Your task to perform on an android device: stop showing notifications on the lock screen Image 0: 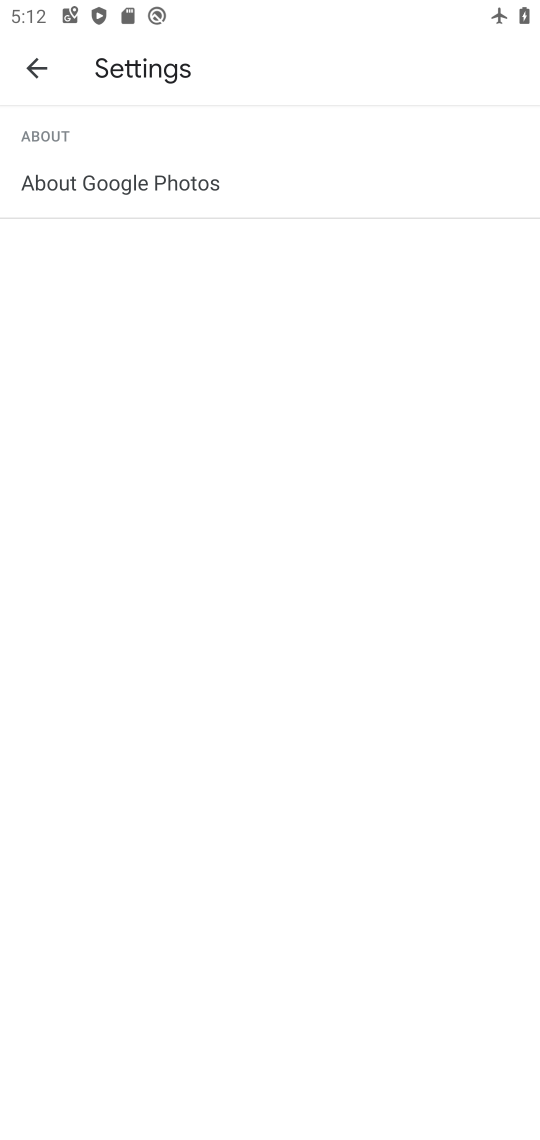
Step 0: press home button
Your task to perform on an android device: stop showing notifications on the lock screen Image 1: 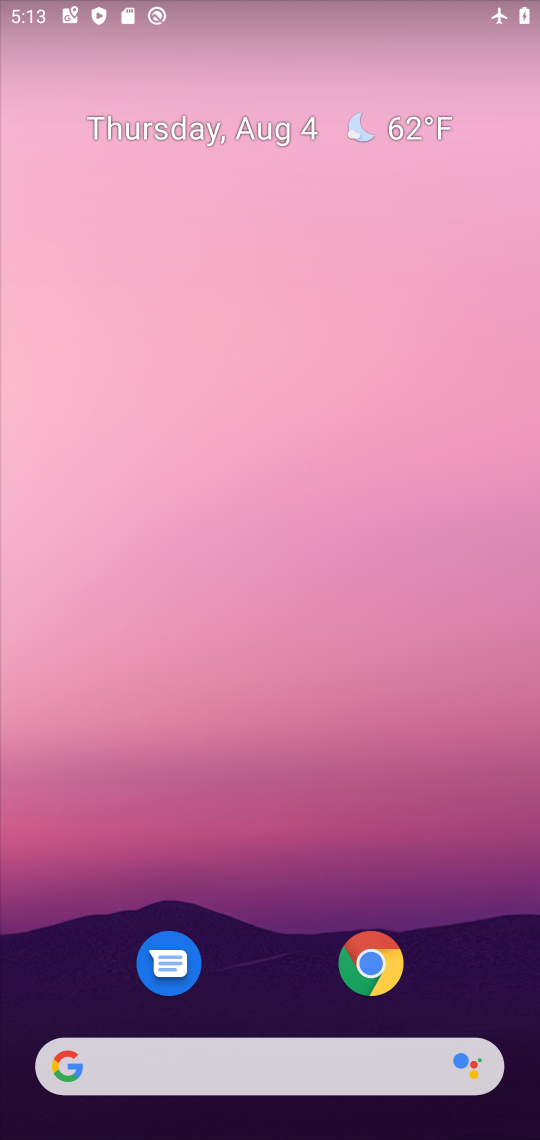
Step 1: drag from (216, 855) to (245, 165)
Your task to perform on an android device: stop showing notifications on the lock screen Image 2: 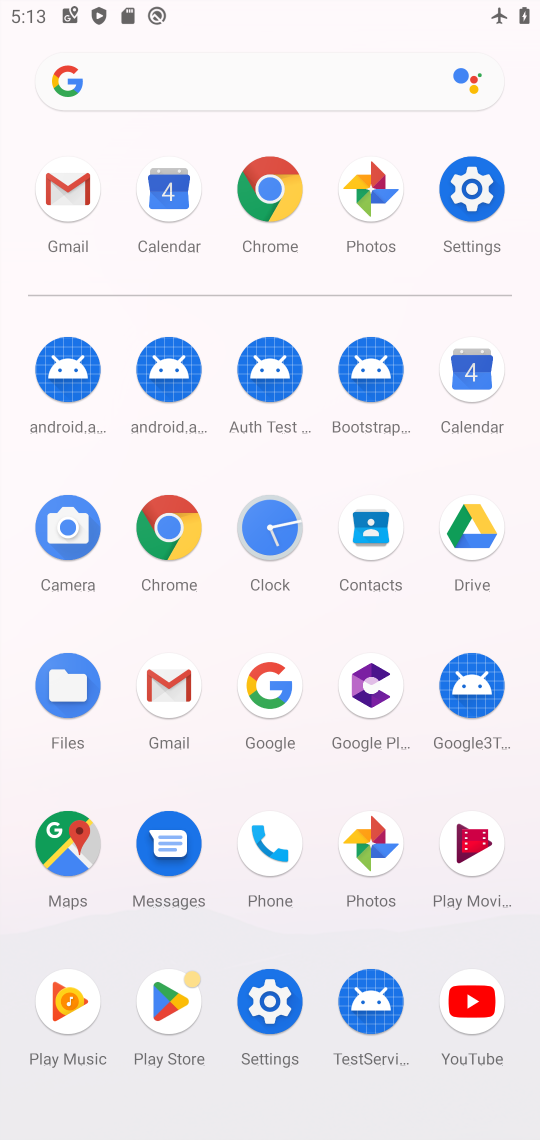
Step 2: click (476, 186)
Your task to perform on an android device: stop showing notifications on the lock screen Image 3: 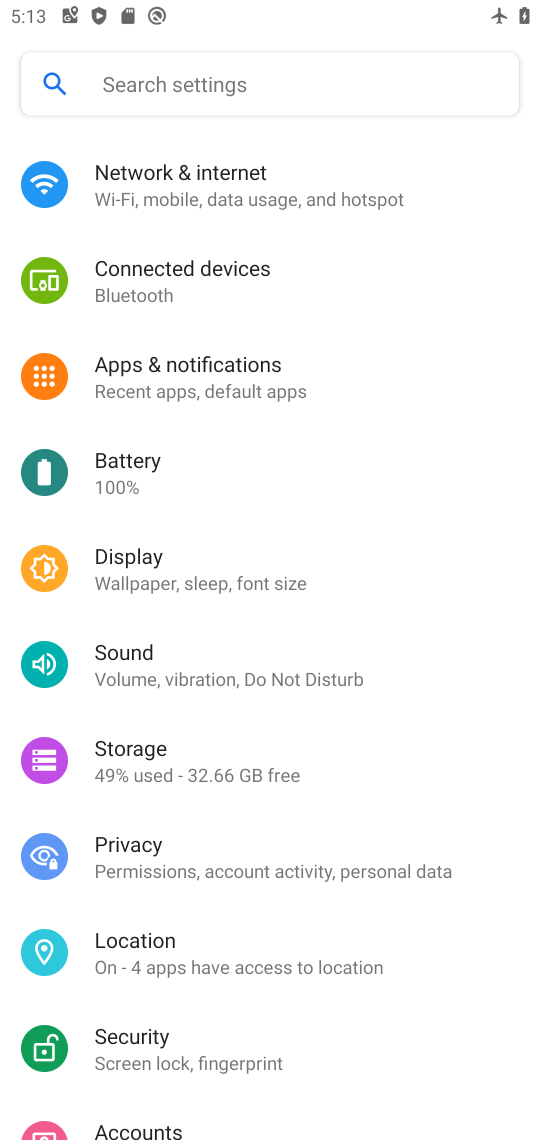
Step 3: click (196, 359)
Your task to perform on an android device: stop showing notifications on the lock screen Image 4: 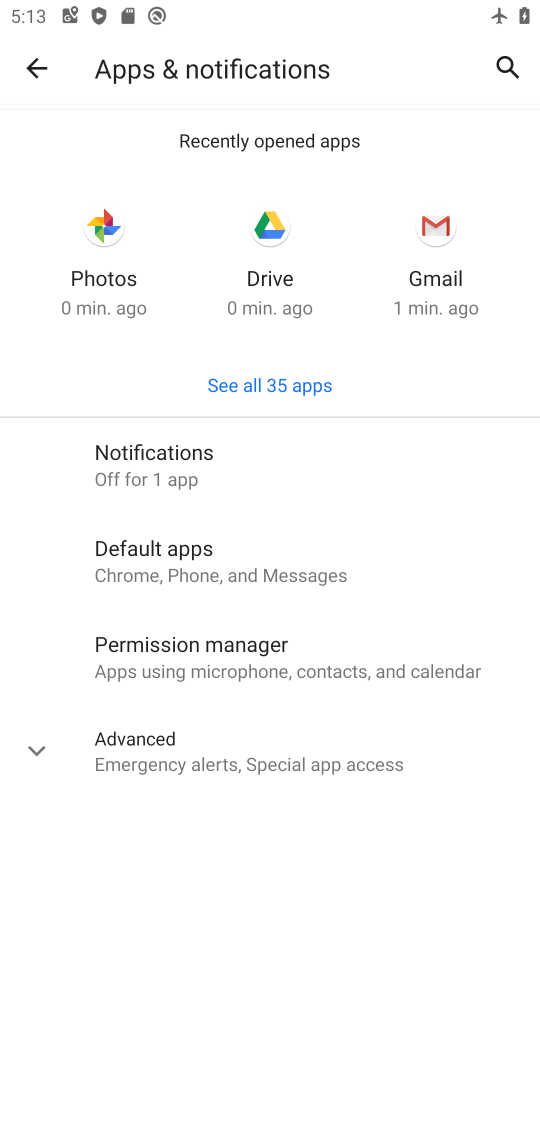
Step 4: click (163, 445)
Your task to perform on an android device: stop showing notifications on the lock screen Image 5: 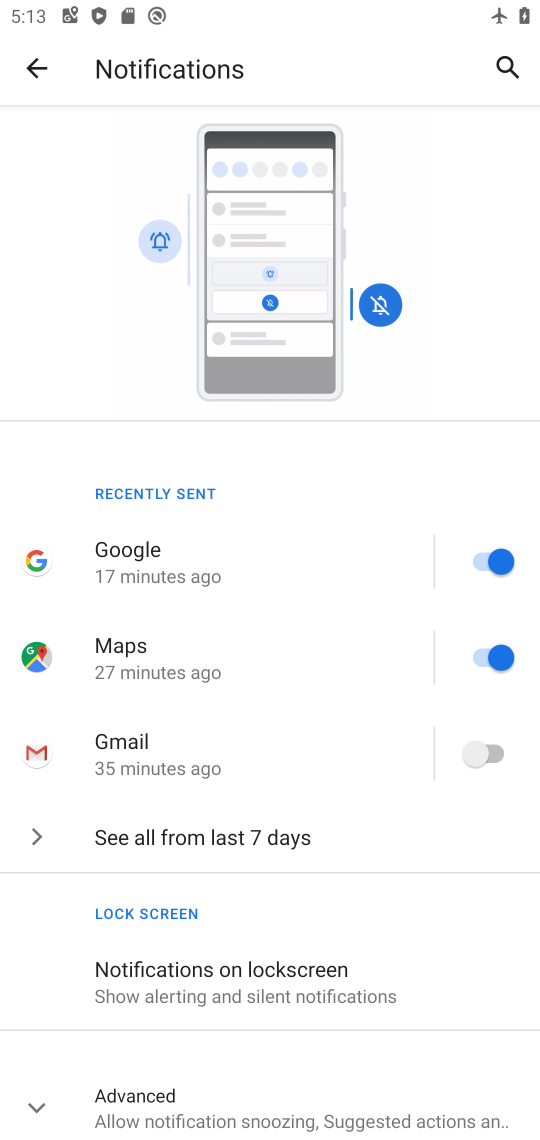
Step 5: click (221, 962)
Your task to perform on an android device: stop showing notifications on the lock screen Image 6: 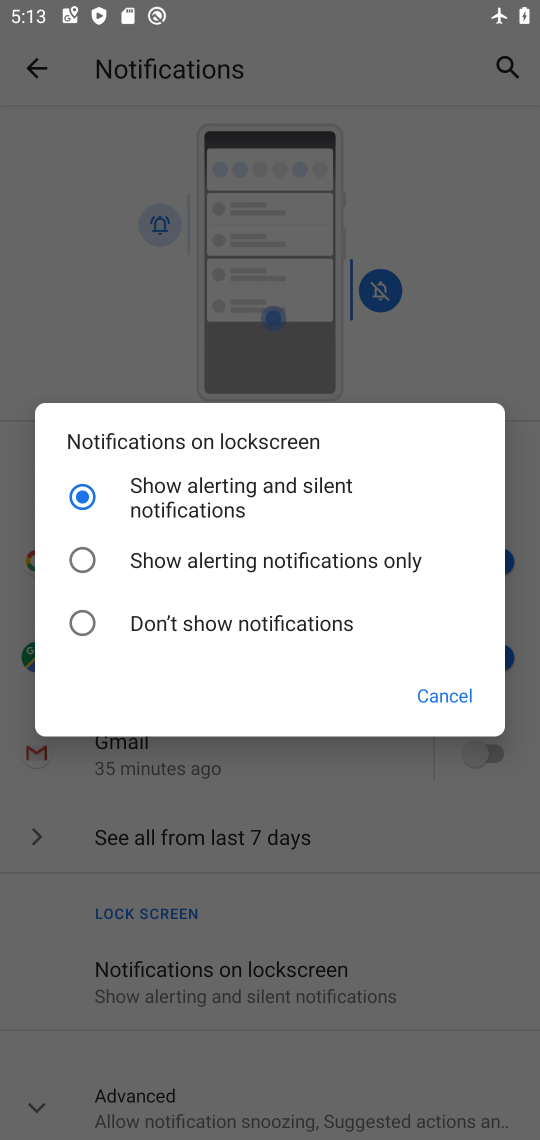
Step 6: click (70, 615)
Your task to perform on an android device: stop showing notifications on the lock screen Image 7: 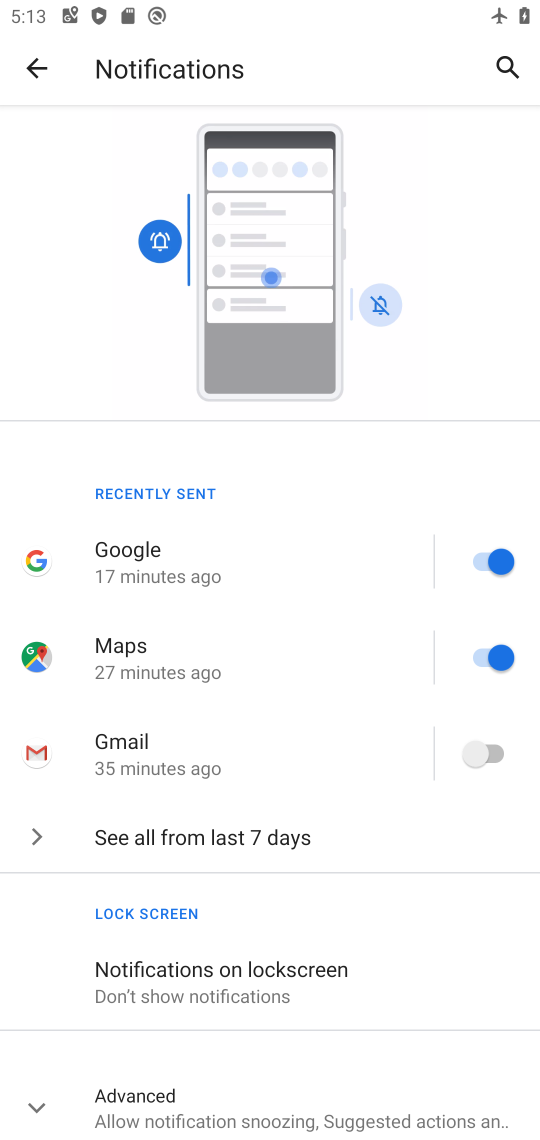
Step 7: task complete